Your task to perform on an android device: Go to Android settings Image 0: 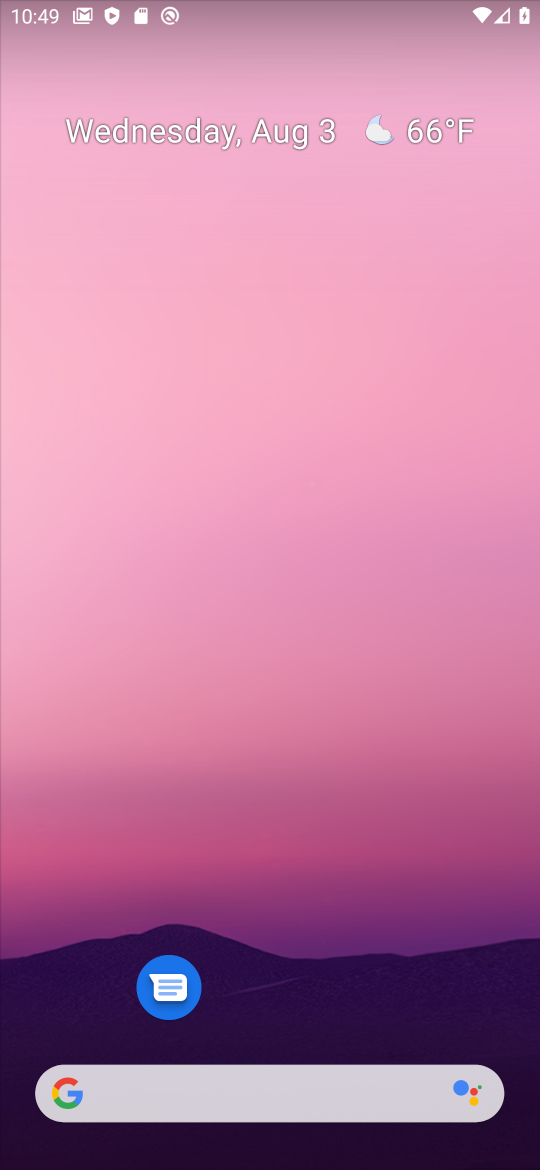
Step 0: drag from (352, 1106) to (281, 204)
Your task to perform on an android device: Go to Android settings Image 1: 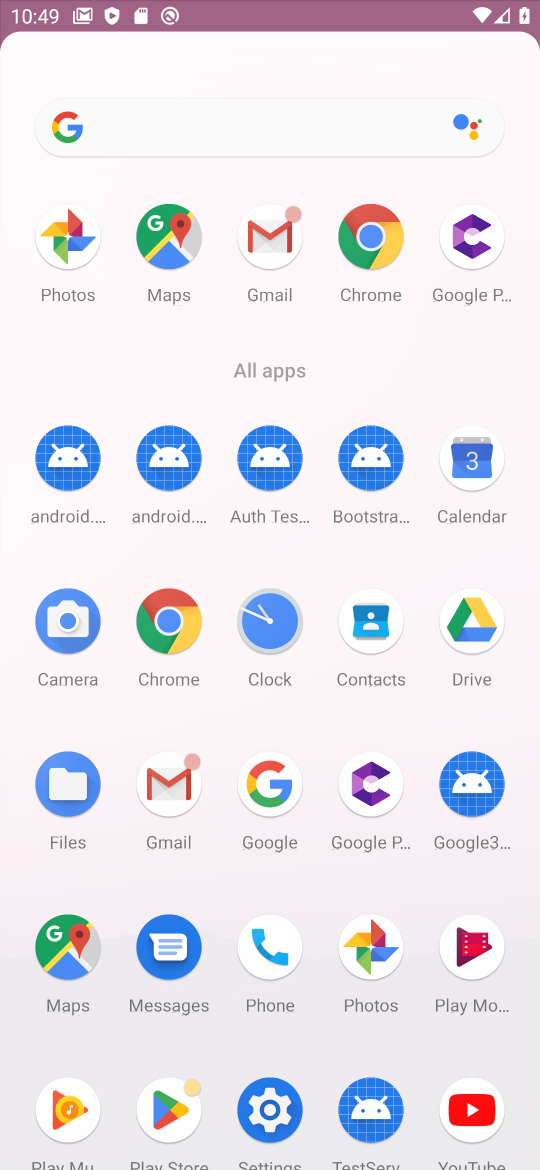
Step 1: drag from (260, 668) to (158, 24)
Your task to perform on an android device: Go to Android settings Image 2: 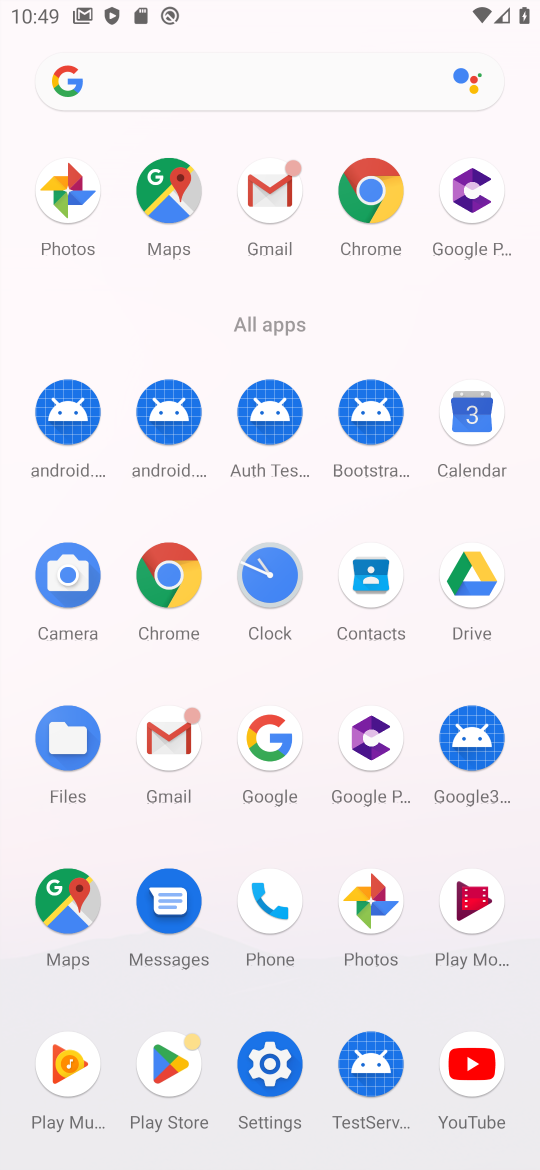
Step 2: click (270, 1090)
Your task to perform on an android device: Go to Android settings Image 3: 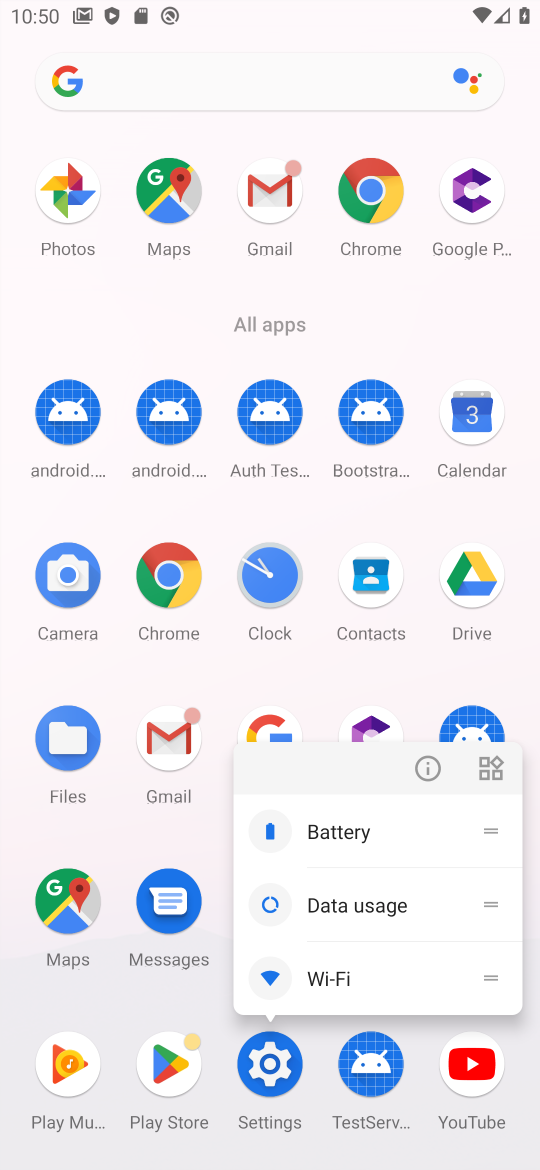
Step 3: click (358, 909)
Your task to perform on an android device: Go to Android settings Image 4: 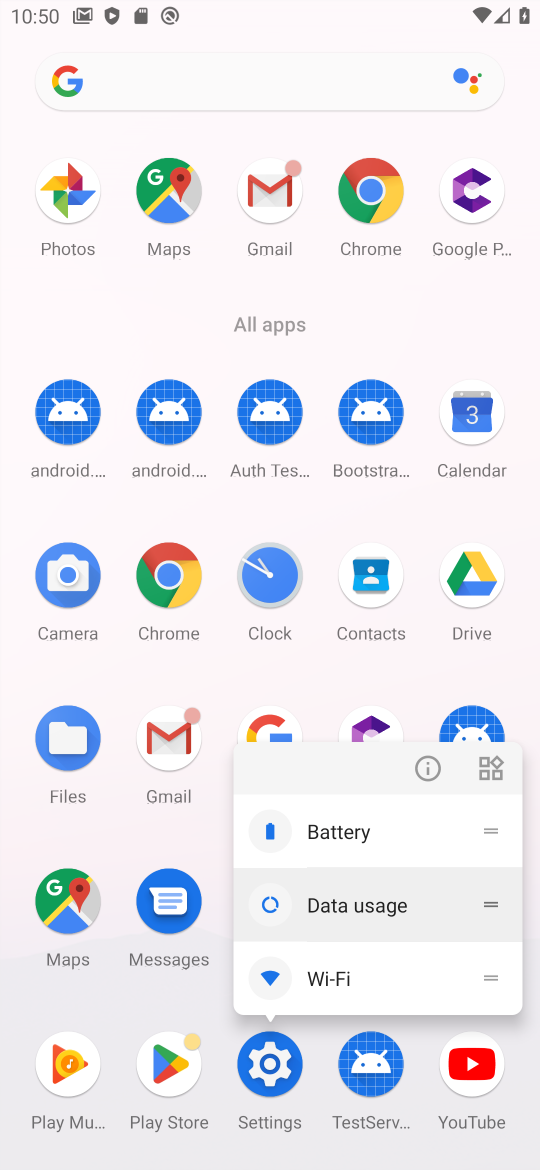
Step 4: click (358, 909)
Your task to perform on an android device: Go to Android settings Image 5: 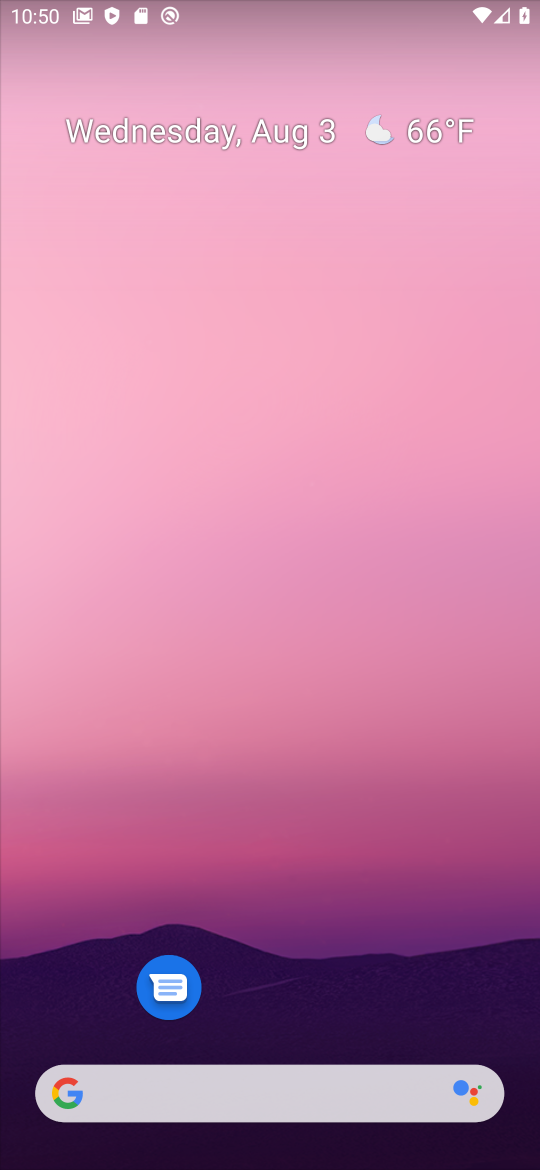
Step 5: drag from (342, 818) to (413, 155)
Your task to perform on an android device: Go to Android settings Image 6: 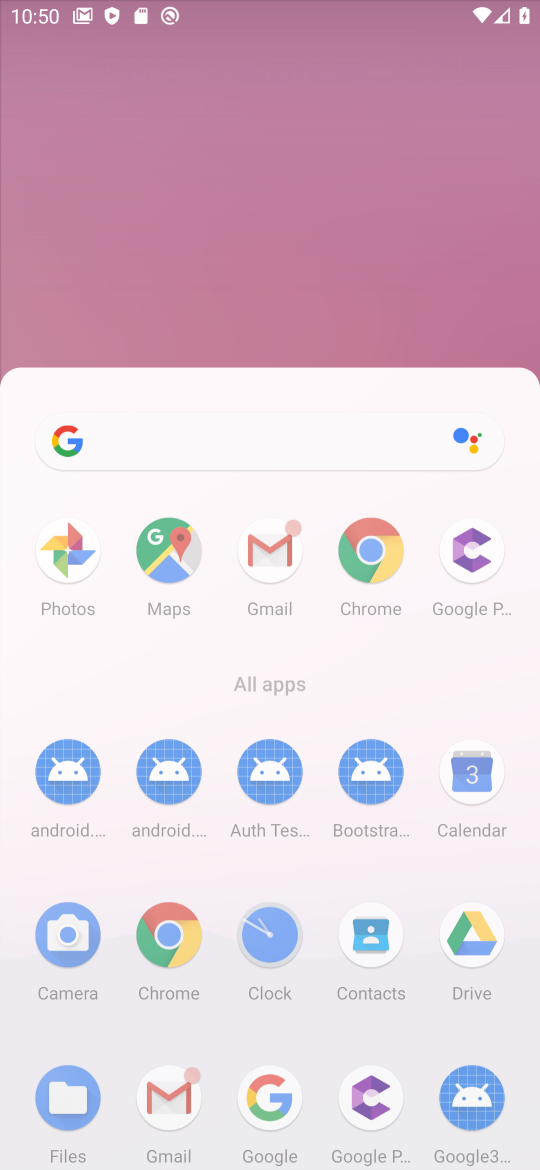
Step 6: drag from (375, 651) to (296, 35)
Your task to perform on an android device: Go to Android settings Image 7: 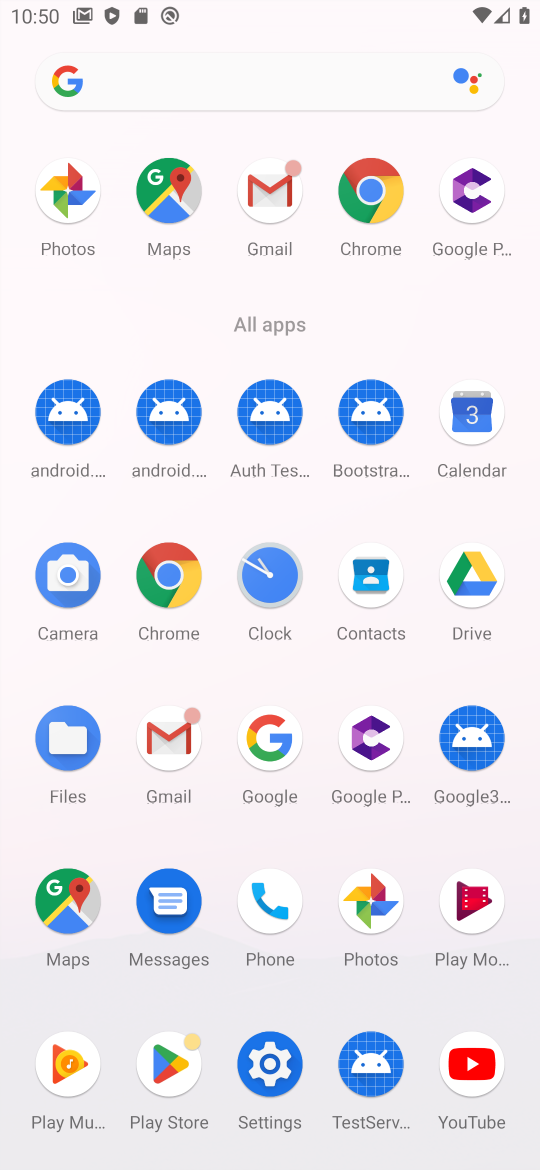
Step 7: drag from (252, 536) to (232, 157)
Your task to perform on an android device: Go to Android settings Image 8: 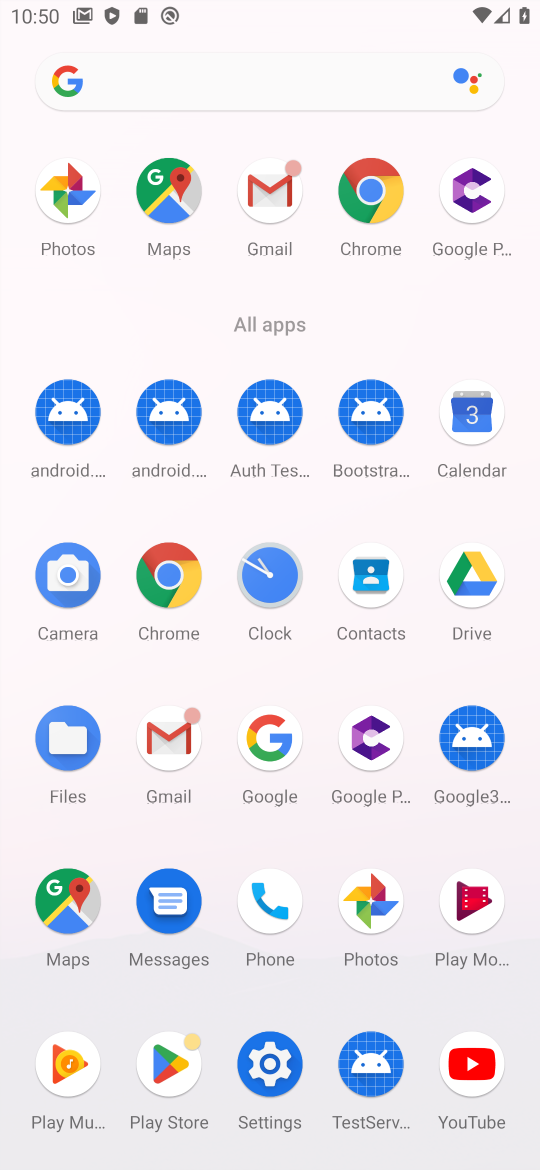
Step 8: click (277, 1071)
Your task to perform on an android device: Go to Android settings Image 9: 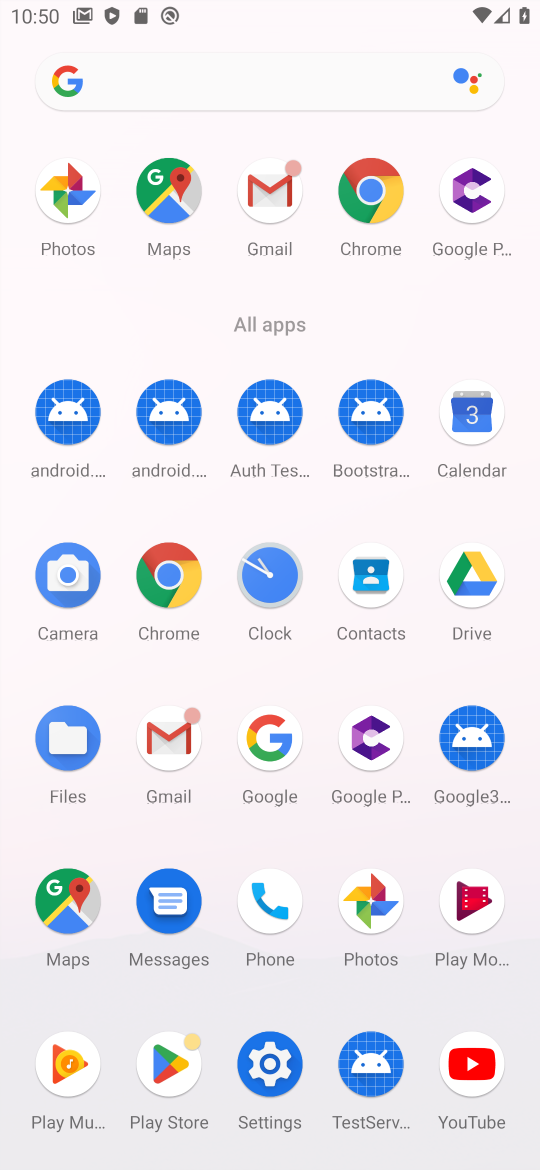
Step 9: click (274, 1074)
Your task to perform on an android device: Go to Android settings Image 10: 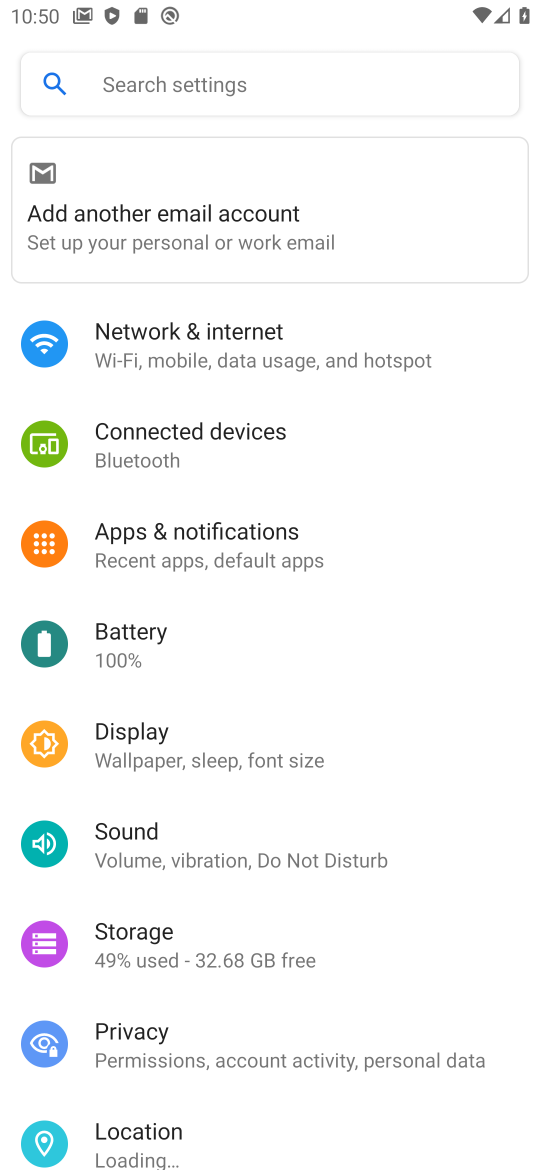
Step 10: drag from (147, 358) to (139, 284)
Your task to perform on an android device: Go to Android settings Image 11: 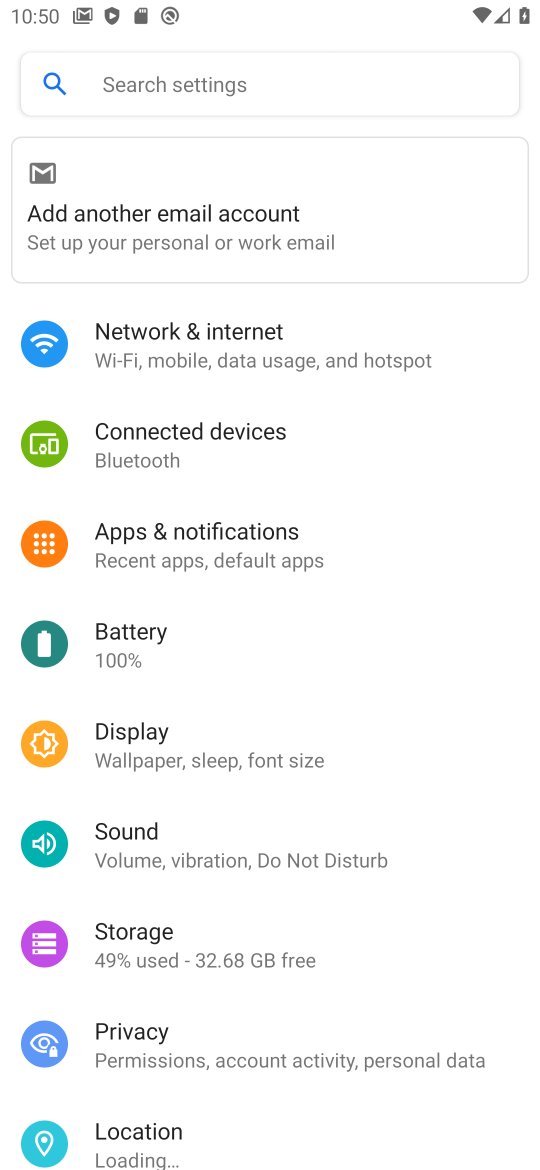
Step 11: drag from (228, 712) to (245, 187)
Your task to perform on an android device: Go to Android settings Image 12: 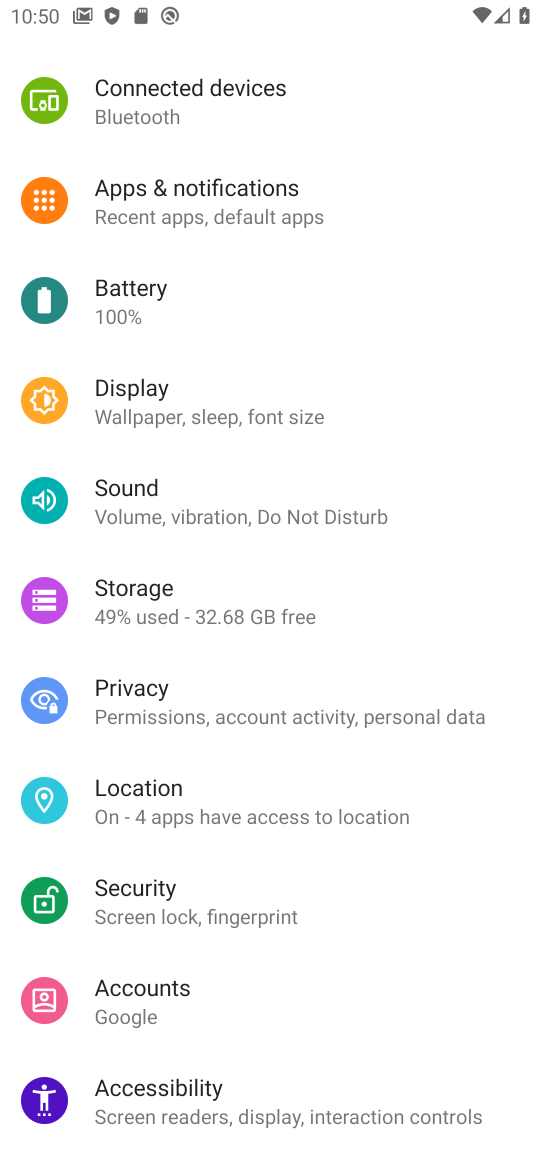
Step 12: drag from (206, 892) to (191, 338)
Your task to perform on an android device: Go to Android settings Image 13: 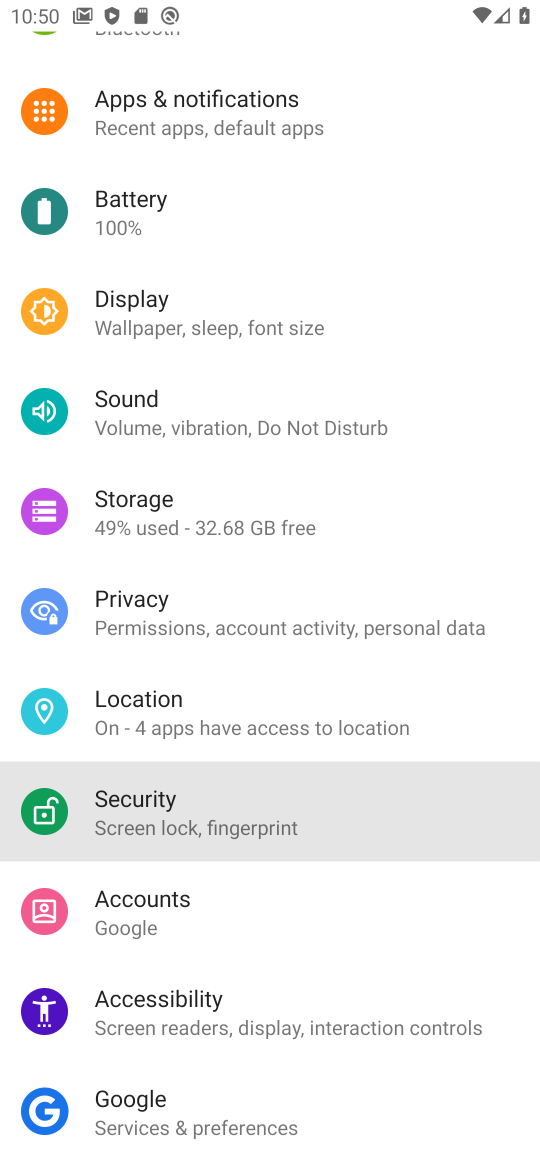
Step 13: drag from (143, 722) to (177, 329)
Your task to perform on an android device: Go to Android settings Image 14: 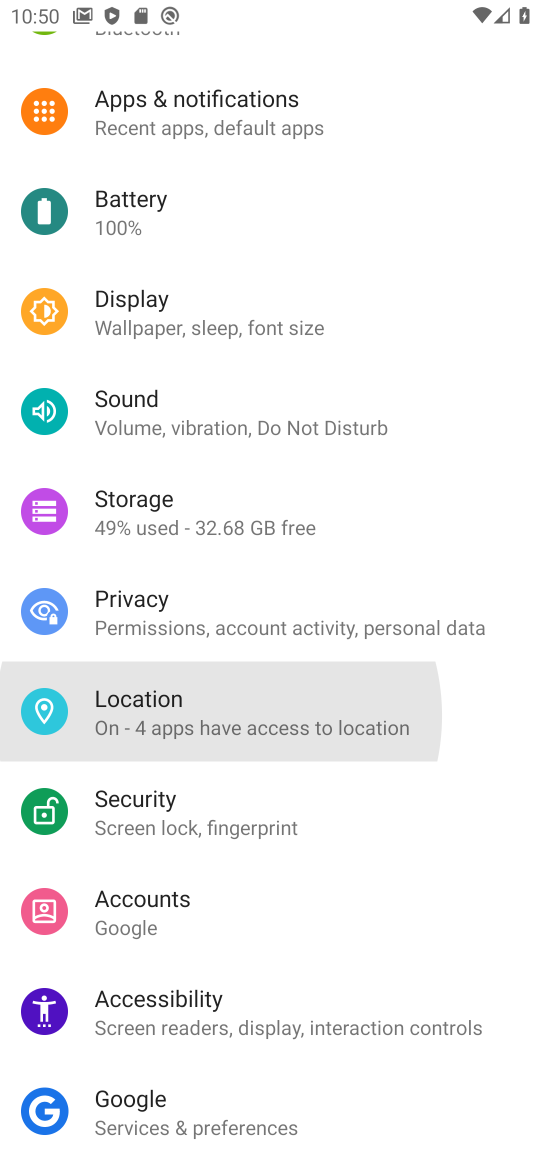
Step 14: click (224, 524)
Your task to perform on an android device: Go to Android settings Image 15: 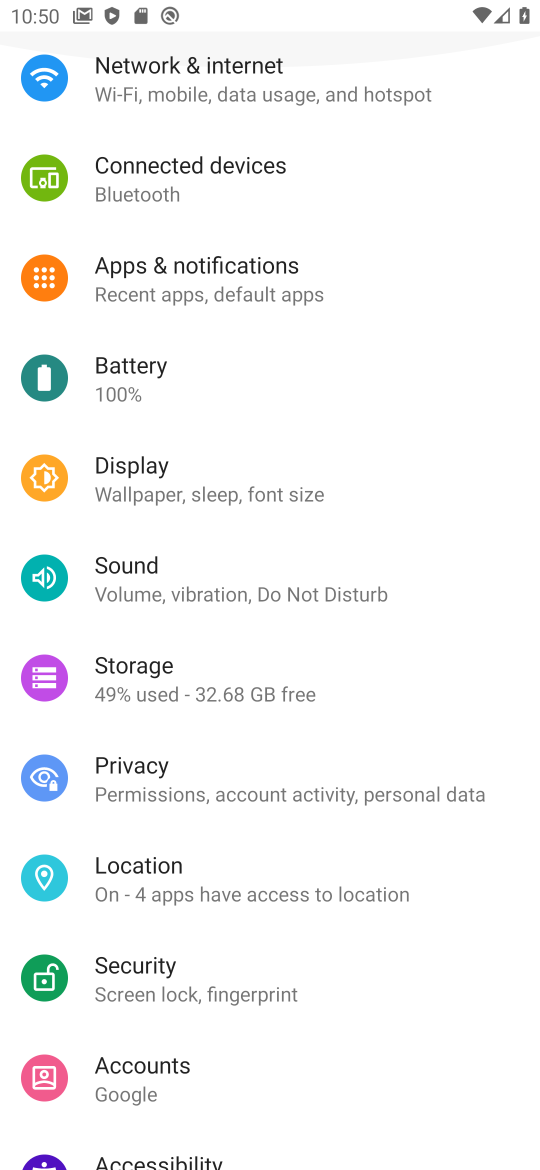
Step 15: drag from (280, 731) to (280, 613)
Your task to perform on an android device: Go to Android settings Image 16: 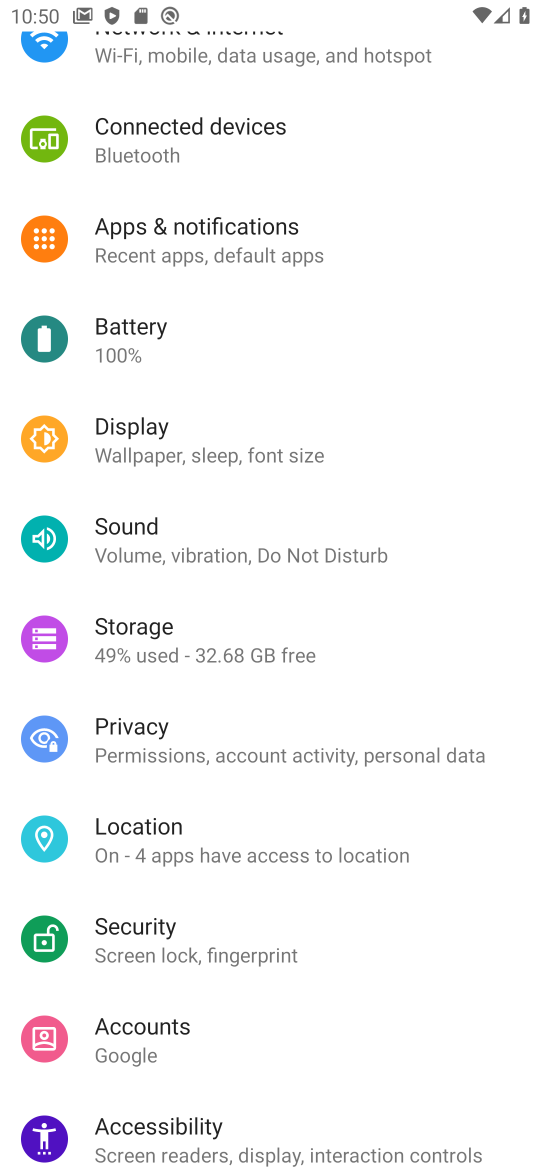
Step 16: drag from (159, 1090) to (120, 466)
Your task to perform on an android device: Go to Android settings Image 17: 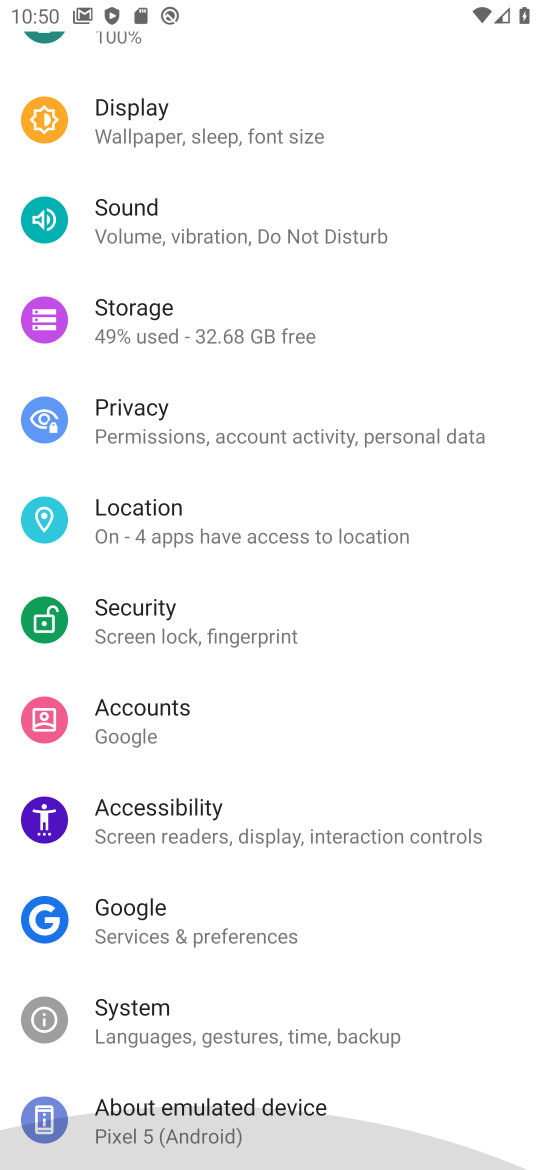
Step 17: drag from (341, 660) to (372, 419)
Your task to perform on an android device: Go to Android settings Image 18: 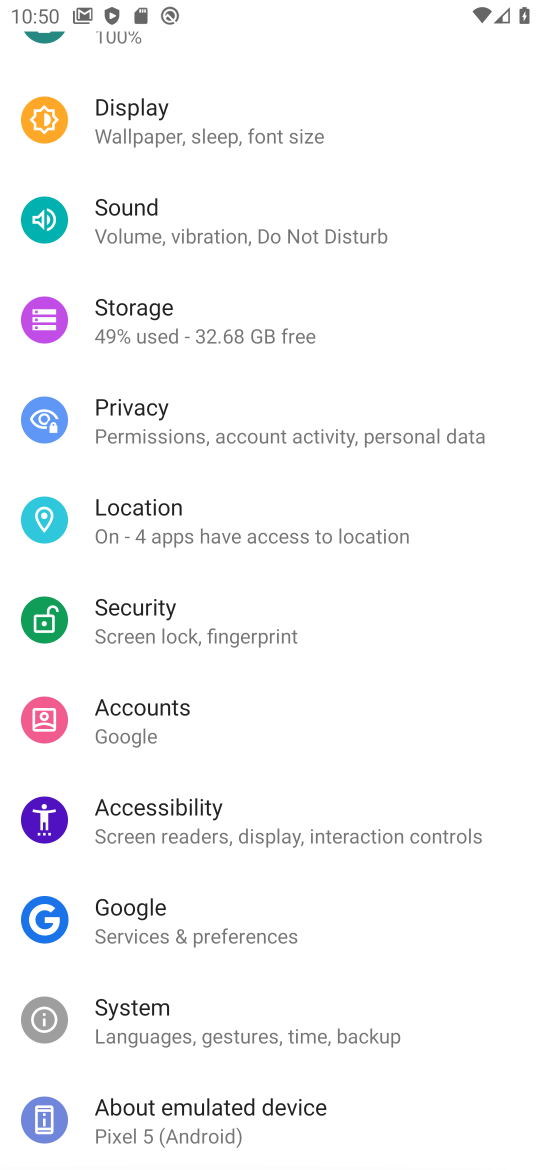
Step 18: drag from (393, 545) to (395, 240)
Your task to perform on an android device: Go to Android settings Image 19: 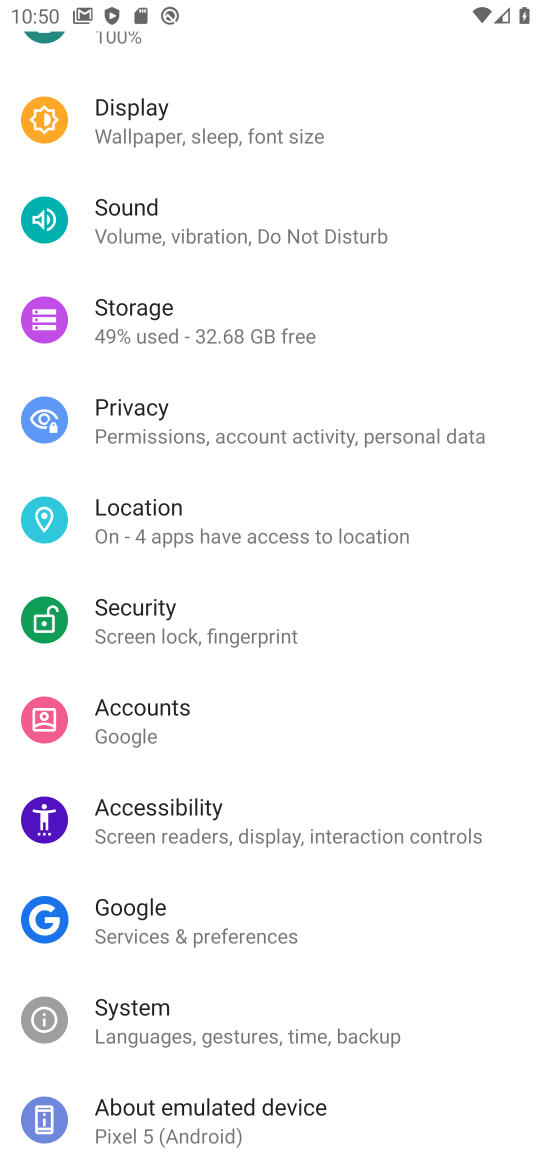
Step 19: click (142, 1101)
Your task to perform on an android device: Go to Android settings Image 20: 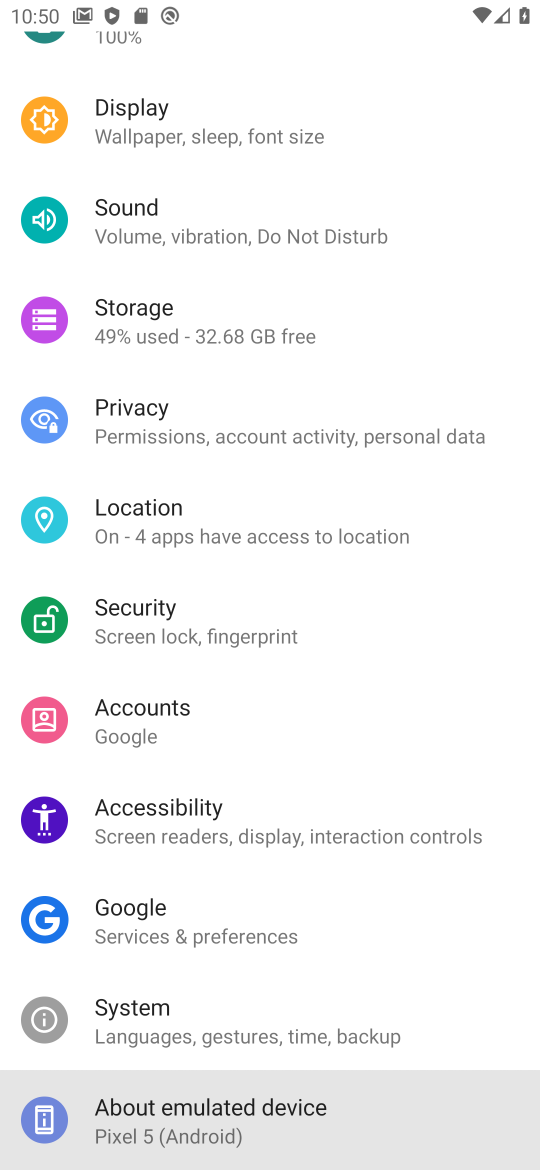
Step 20: click (142, 1101)
Your task to perform on an android device: Go to Android settings Image 21: 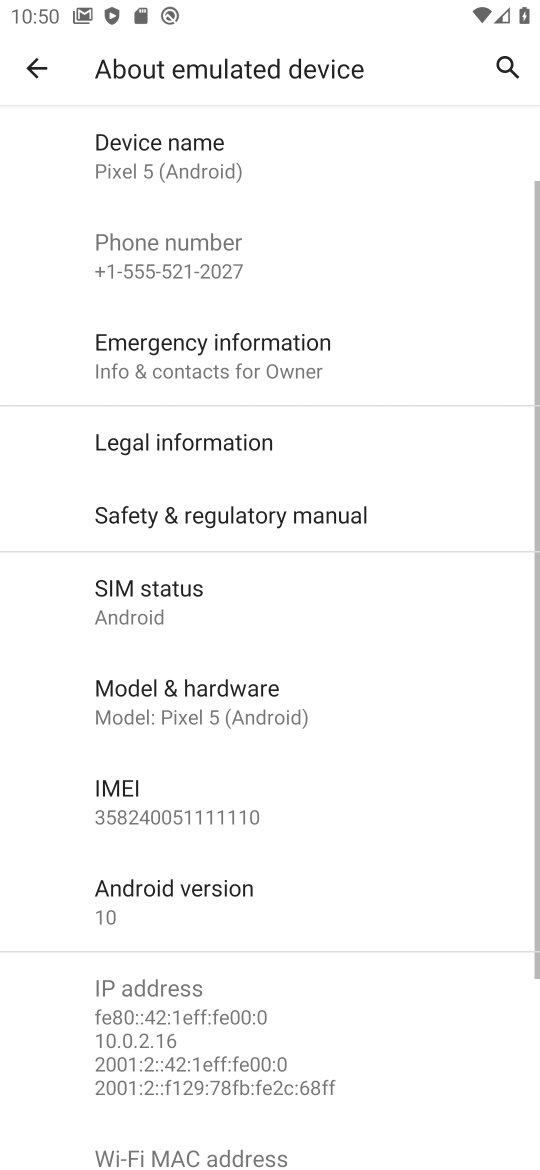
Step 21: click (156, 1110)
Your task to perform on an android device: Go to Android settings Image 22: 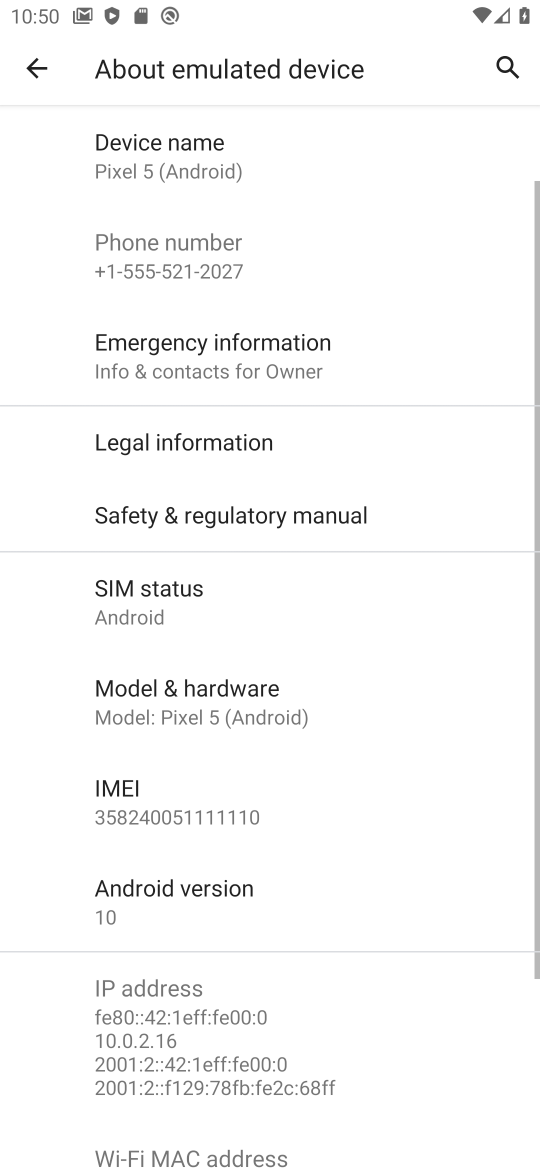
Step 22: task complete